Your task to perform on an android device: turn on showing notifications on the lock screen Image 0: 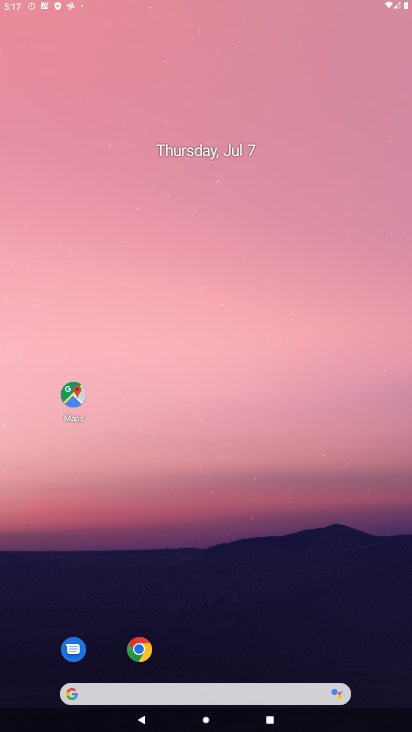
Step 0: drag from (292, 470) to (156, 122)
Your task to perform on an android device: turn on showing notifications on the lock screen Image 1: 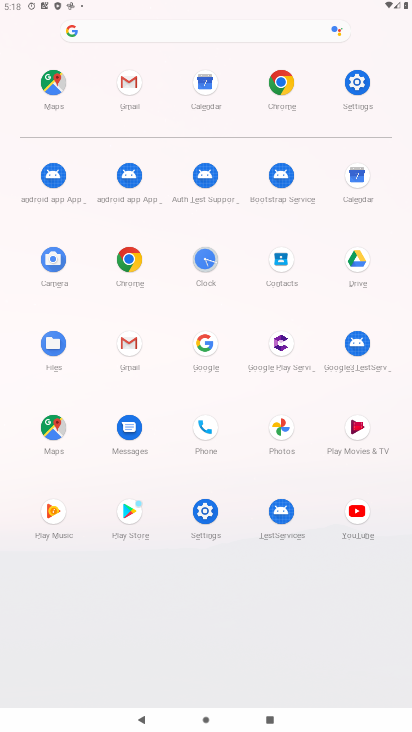
Step 1: click (386, 35)
Your task to perform on an android device: turn on showing notifications on the lock screen Image 2: 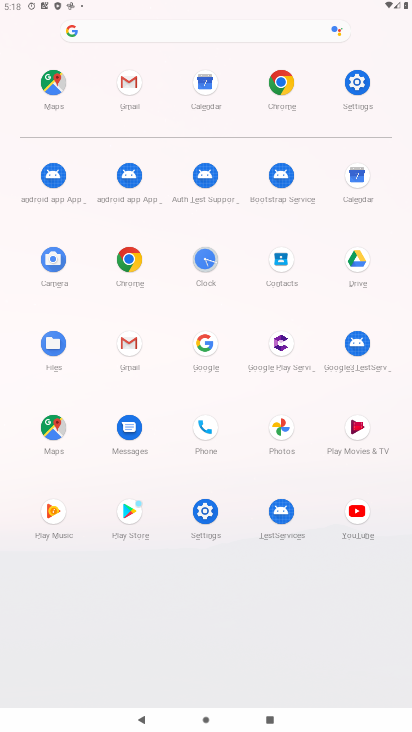
Step 2: click (360, 97)
Your task to perform on an android device: turn on showing notifications on the lock screen Image 3: 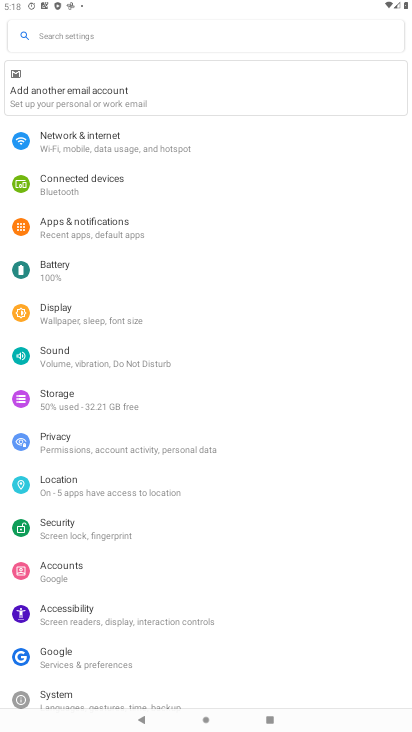
Step 3: click (168, 223)
Your task to perform on an android device: turn on showing notifications on the lock screen Image 4: 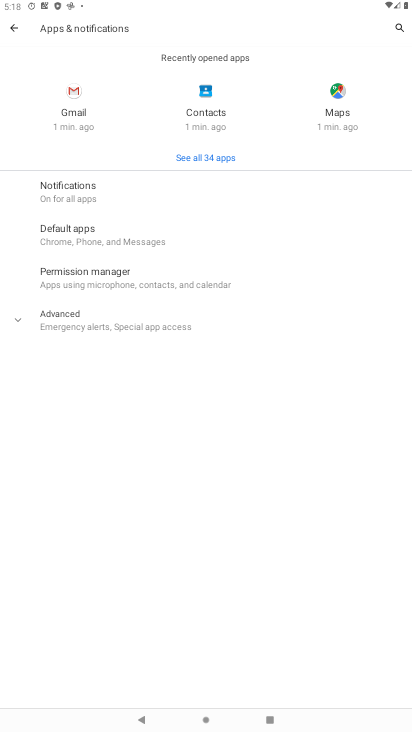
Step 4: click (149, 190)
Your task to perform on an android device: turn on showing notifications on the lock screen Image 5: 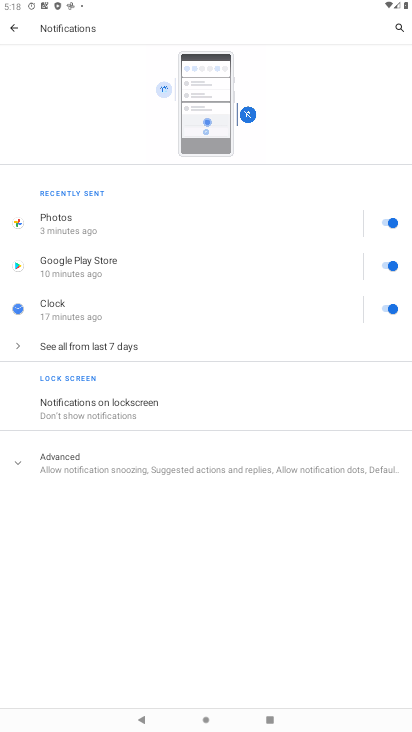
Step 5: click (162, 411)
Your task to perform on an android device: turn on showing notifications on the lock screen Image 6: 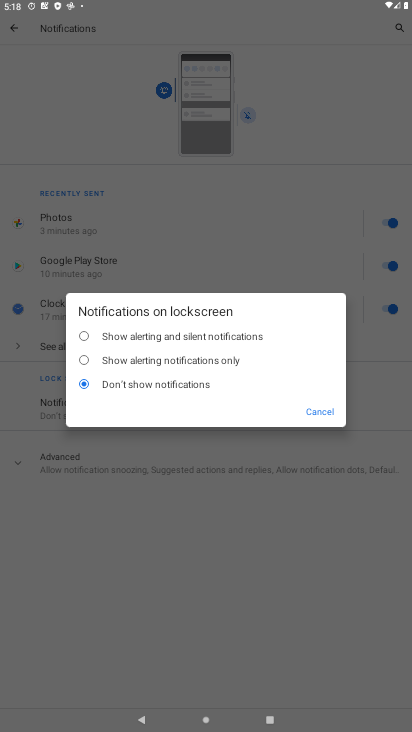
Step 6: click (95, 334)
Your task to perform on an android device: turn on showing notifications on the lock screen Image 7: 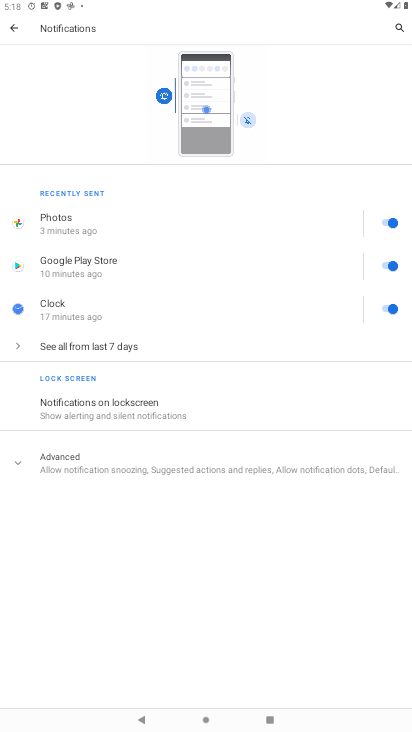
Step 7: task complete